Your task to perform on an android device: change timer sound Image 0: 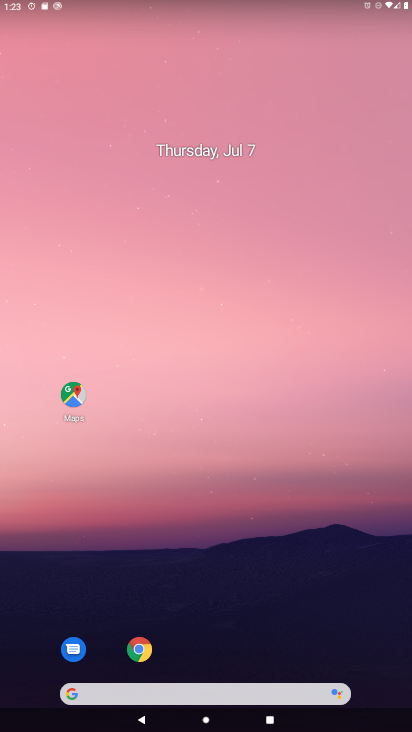
Step 0: drag from (268, 678) to (218, 4)
Your task to perform on an android device: change timer sound Image 1: 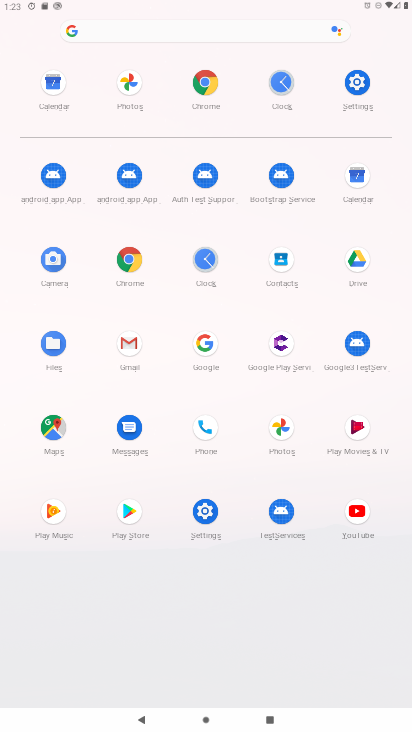
Step 1: click (204, 275)
Your task to perform on an android device: change timer sound Image 2: 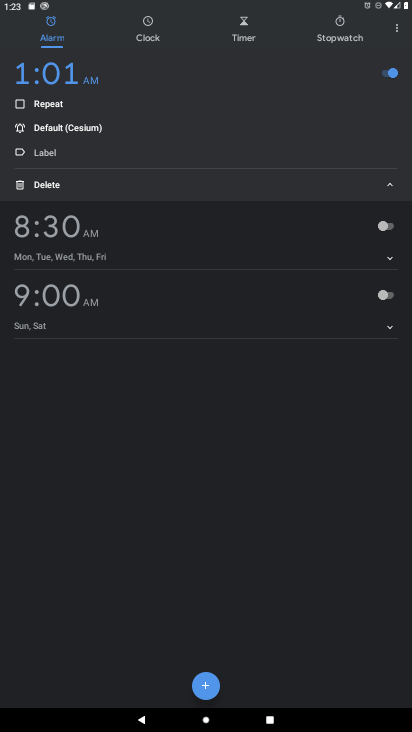
Step 2: click (391, 32)
Your task to perform on an android device: change timer sound Image 3: 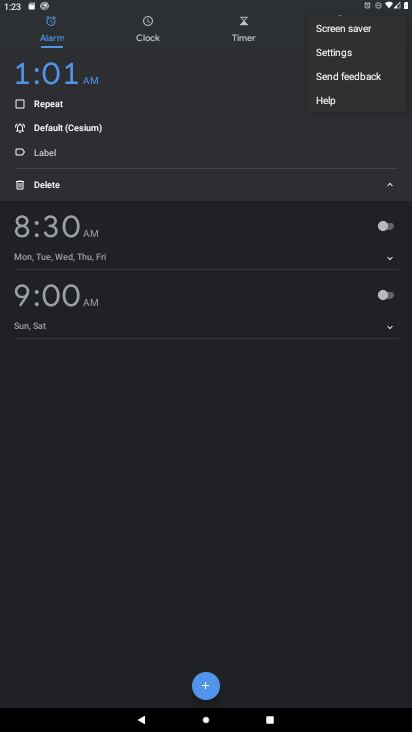
Step 3: click (348, 52)
Your task to perform on an android device: change timer sound Image 4: 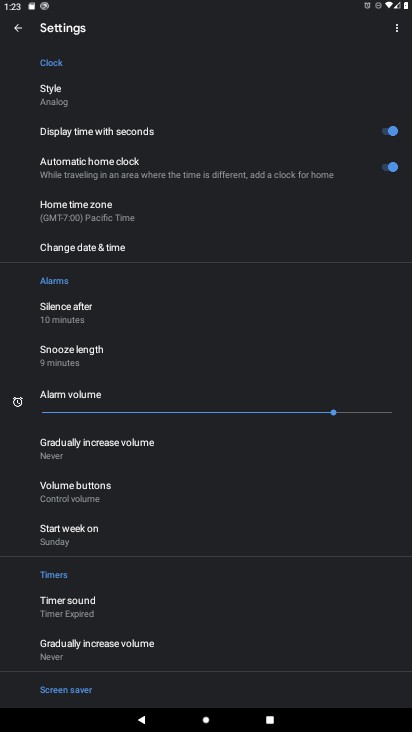
Step 4: click (105, 598)
Your task to perform on an android device: change timer sound Image 5: 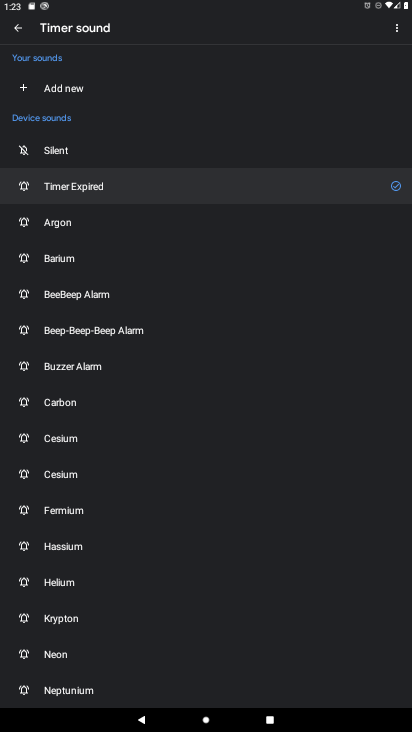
Step 5: click (53, 228)
Your task to perform on an android device: change timer sound Image 6: 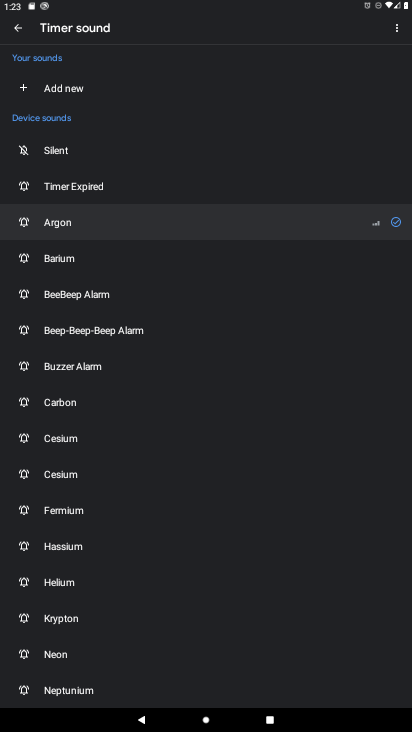
Step 6: task complete